Your task to perform on an android device: Go to Yahoo.com Image 0: 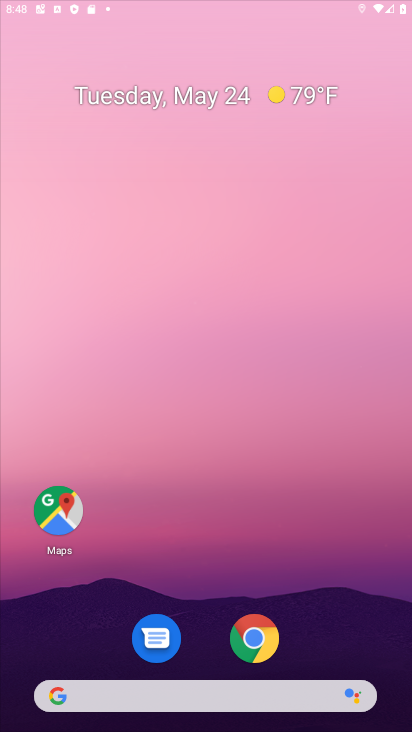
Step 0: click (344, 372)
Your task to perform on an android device: Go to Yahoo.com Image 1: 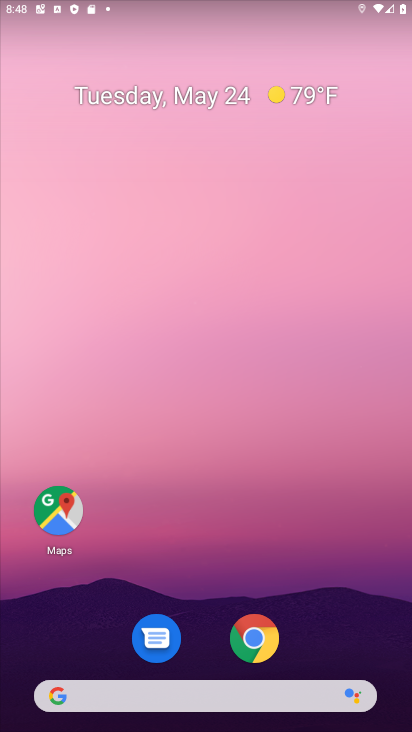
Step 1: click (290, 684)
Your task to perform on an android device: Go to Yahoo.com Image 2: 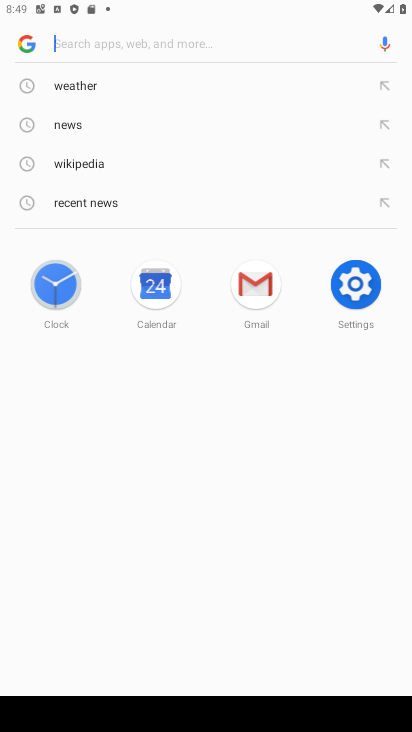
Step 2: type "yahoo.com"
Your task to perform on an android device: Go to Yahoo.com Image 3: 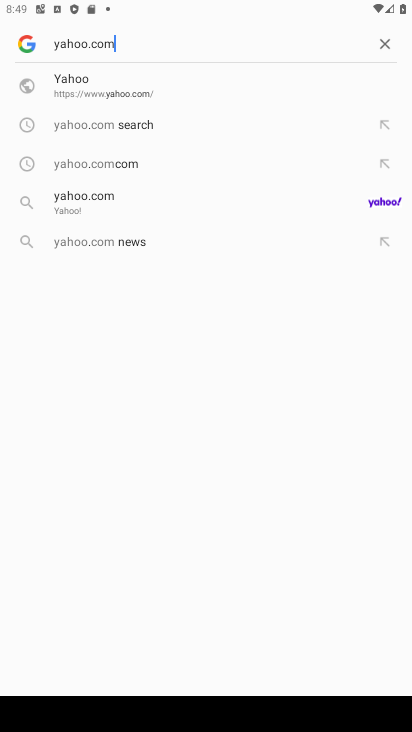
Step 3: click (131, 85)
Your task to perform on an android device: Go to Yahoo.com Image 4: 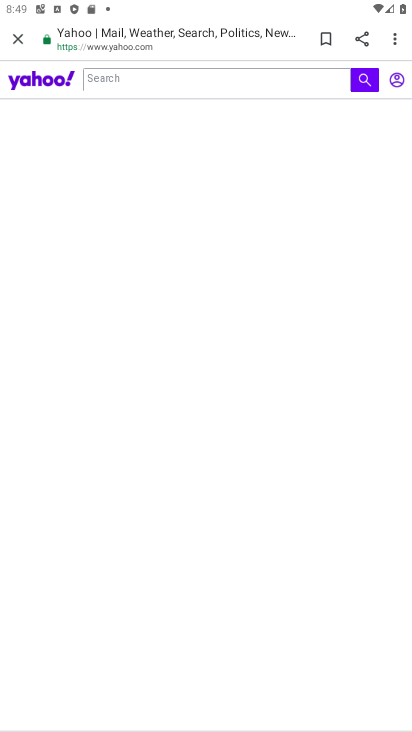
Step 4: task complete